Your task to perform on an android device: turn pop-ups on in chrome Image 0: 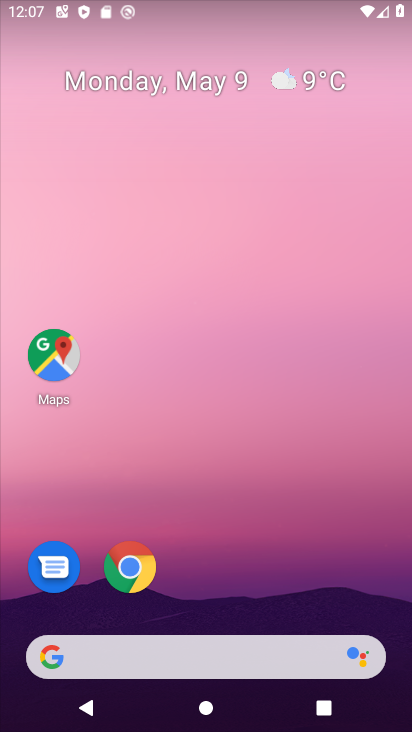
Step 0: drag from (280, 678) to (191, 212)
Your task to perform on an android device: turn pop-ups on in chrome Image 1: 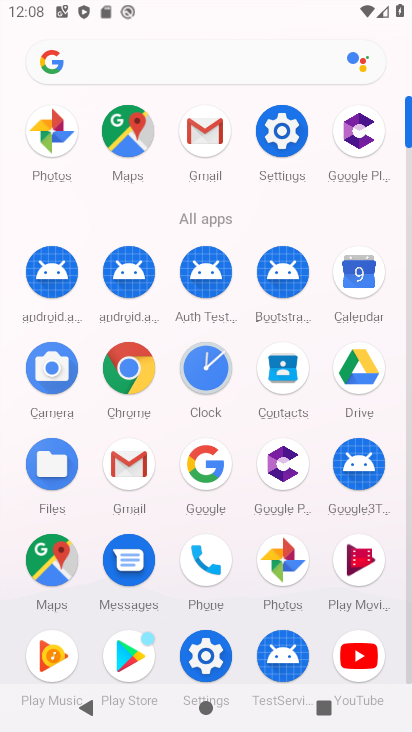
Step 1: click (130, 375)
Your task to perform on an android device: turn pop-ups on in chrome Image 2: 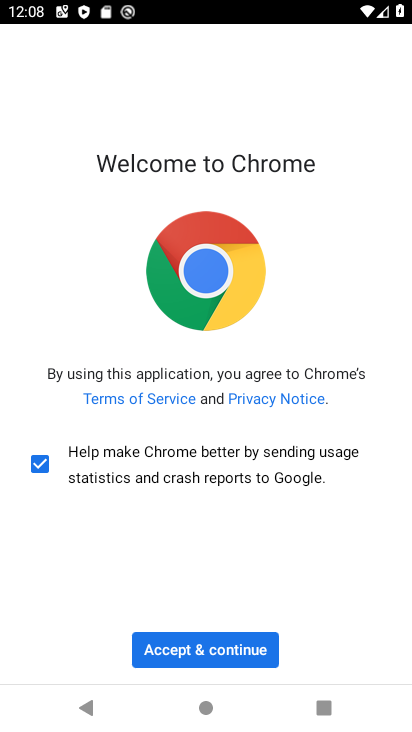
Step 2: click (213, 644)
Your task to perform on an android device: turn pop-ups on in chrome Image 3: 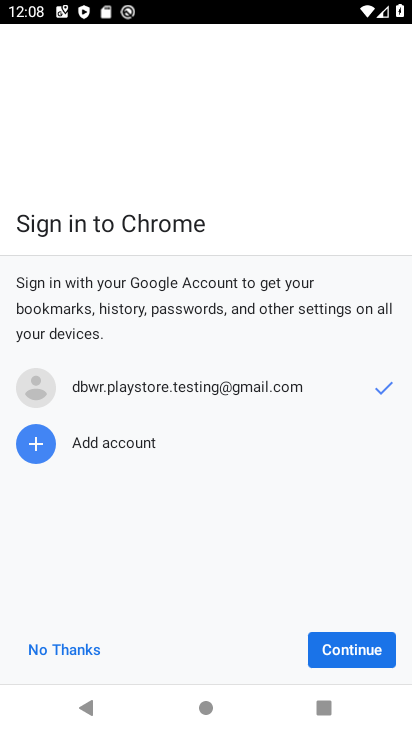
Step 3: click (347, 640)
Your task to perform on an android device: turn pop-ups on in chrome Image 4: 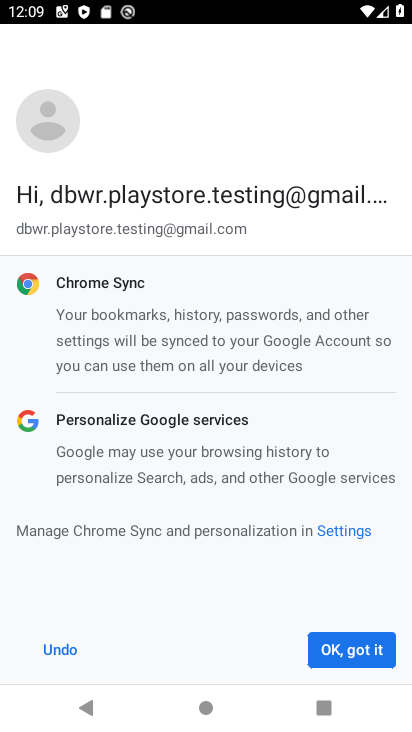
Step 4: click (369, 654)
Your task to perform on an android device: turn pop-ups on in chrome Image 5: 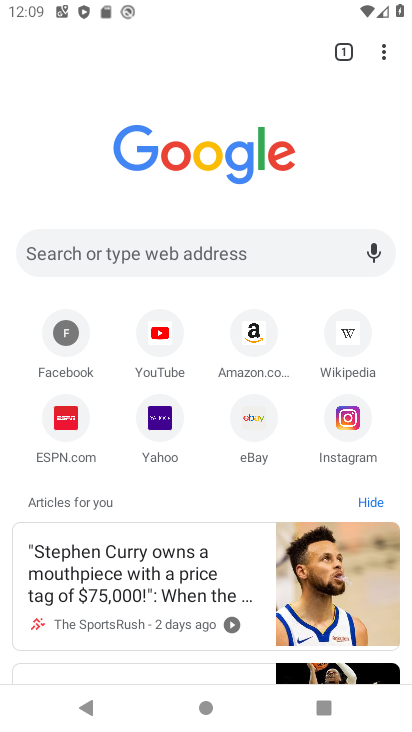
Step 5: click (390, 69)
Your task to perform on an android device: turn pop-ups on in chrome Image 6: 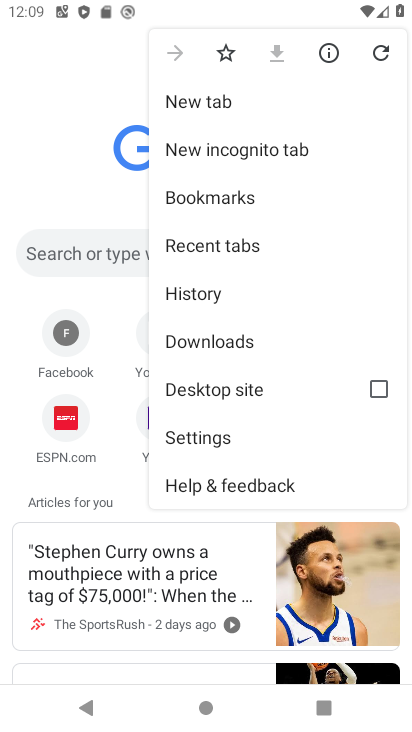
Step 6: click (210, 428)
Your task to perform on an android device: turn pop-ups on in chrome Image 7: 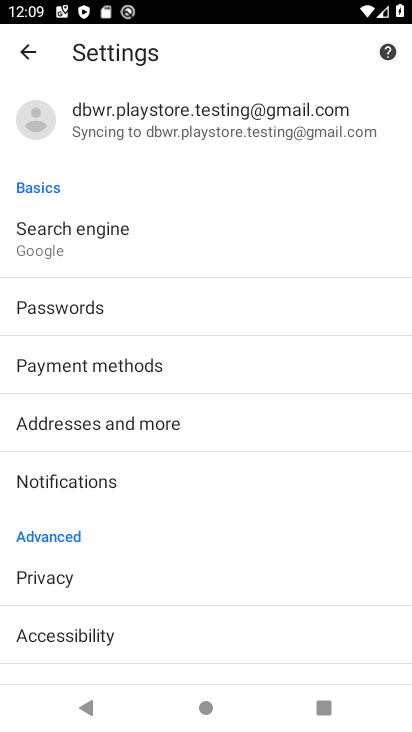
Step 7: drag from (116, 548) to (160, 283)
Your task to perform on an android device: turn pop-ups on in chrome Image 8: 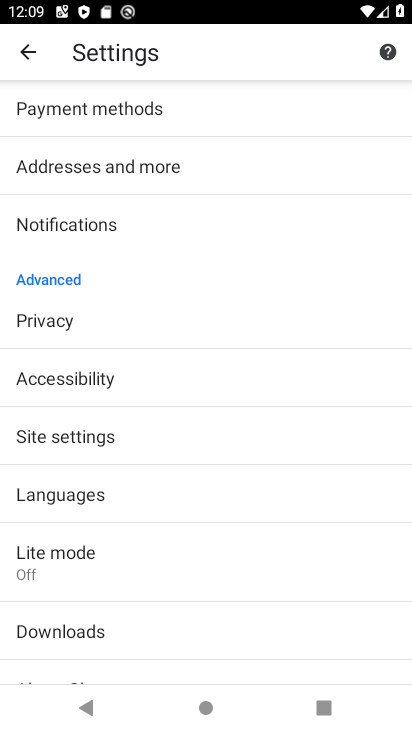
Step 8: click (93, 444)
Your task to perform on an android device: turn pop-ups on in chrome Image 9: 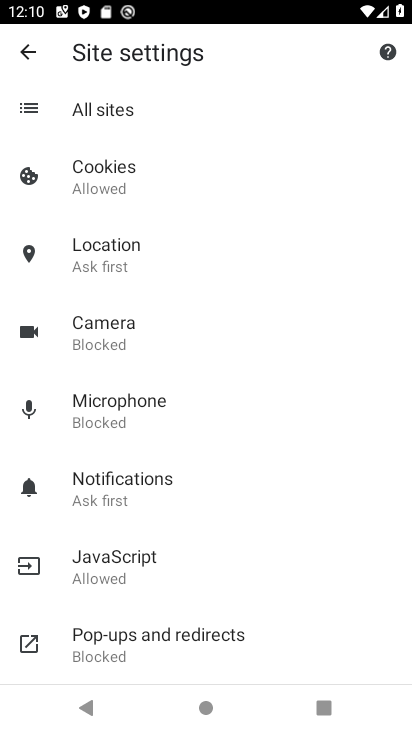
Step 9: click (119, 641)
Your task to perform on an android device: turn pop-ups on in chrome Image 10: 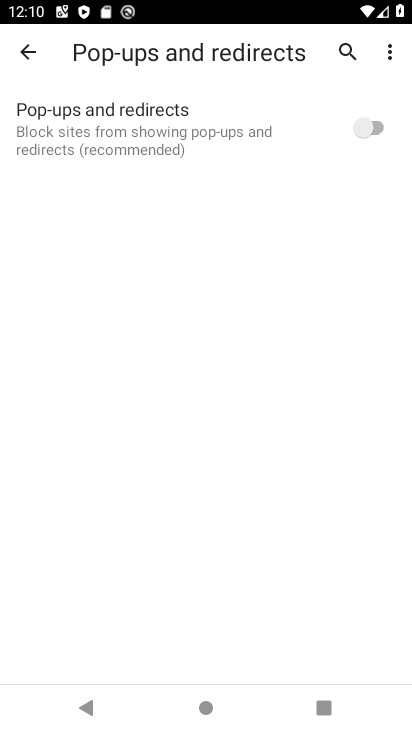
Step 10: task complete